Your task to perform on an android device: Open Google Chrome and open the bookmarks view Image 0: 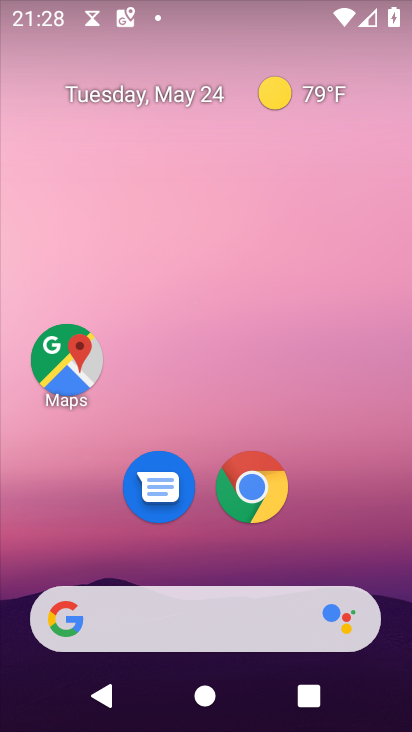
Step 0: press home button
Your task to perform on an android device: Open Google Chrome and open the bookmarks view Image 1: 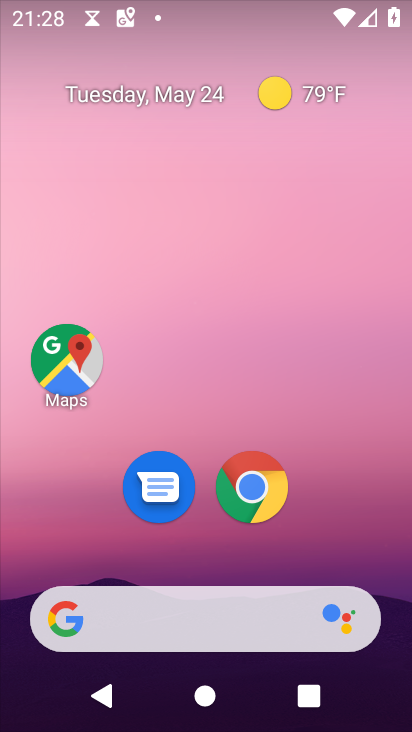
Step 1: click (261, 494)
Your task to perform on an android device: Open Google Chrome and open the bookmarks view Image 2: 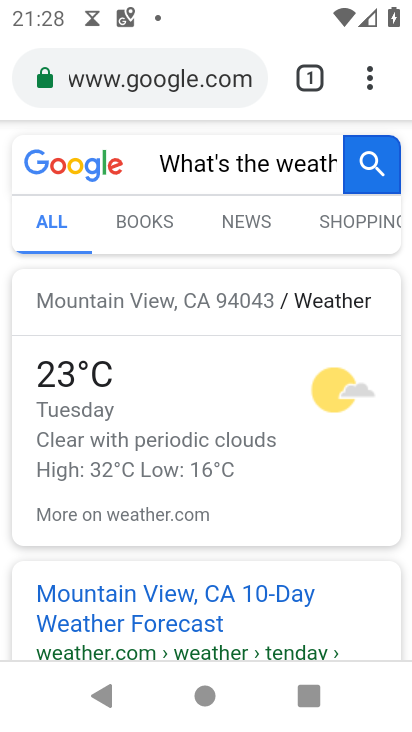
Step 2: task complete